Your task to perform on an android device: Open battery settings Image 0: 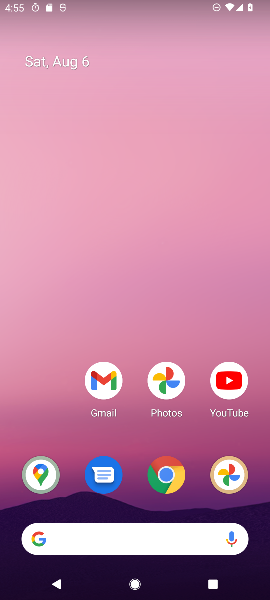
Step 0: drag from (13, 548) to (128, 230)
Your task to perform on an android device: Open battery settings Image 1: 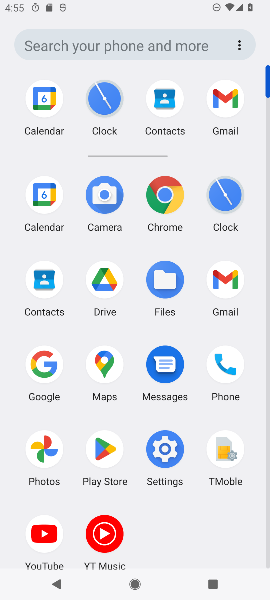
Step 1: click (158, 447)
Your task to perform on an android device: Open battery settings Image 2: 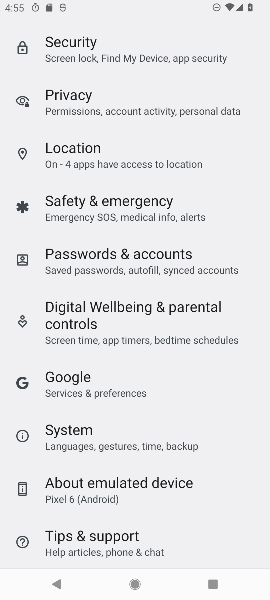
Step 2: drag from (212, 525) to (233, 320)
Your task to perform on an android device: Open battery settings Image 3: 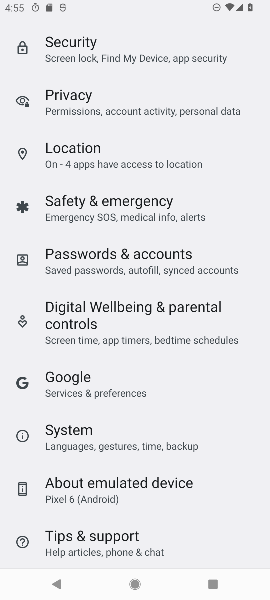
Step 3: drag from (243, 43) to (214, 329)
Your task to perform on an android device: Open battery settings Image 4: 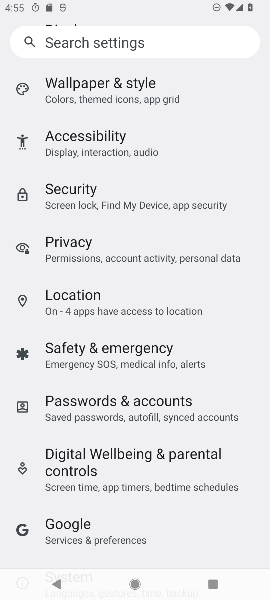
Step 4: drag from (219, 78) to (166, 431)
Your task to perform on an android device: Open battery settings Image 5: 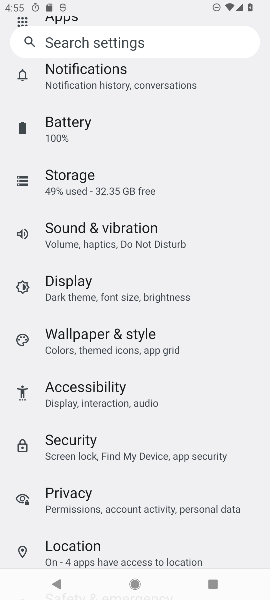
Step 5: click (65, 134)
Your task to perform on an android device: Open battery settings Image 6: 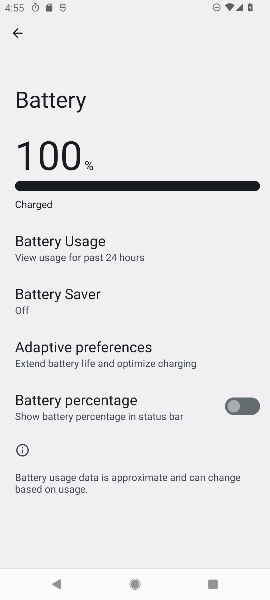
Step 6: task complete